Your task to perform on an android device: open sync settings in chrome Image 0: 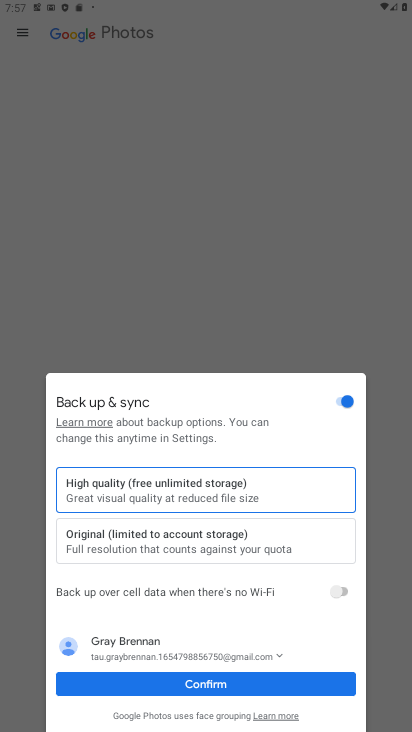
Step 0: press back button
Your task to perform on an android device: open sync settings in chrome Image 1: 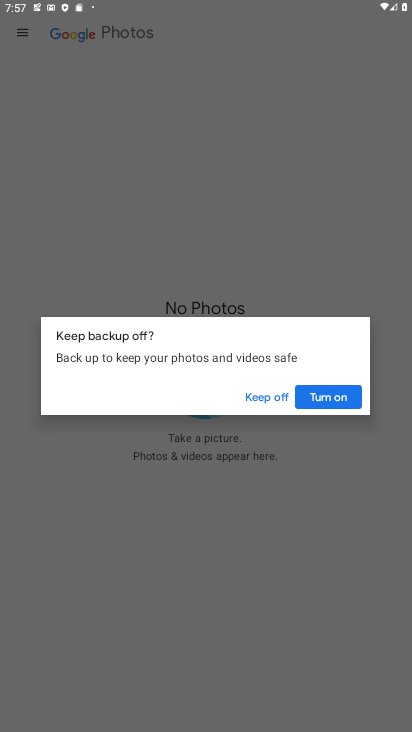
Step 1: click (253, 395)
Your task to perform on an android device: open sync settings in chrome Image 2: 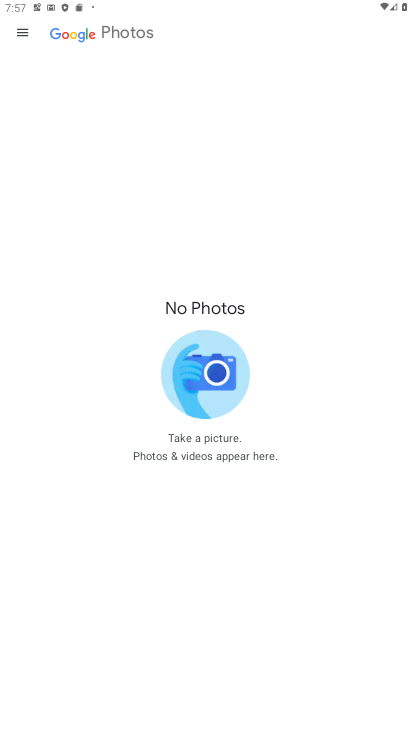
Step 2: press home button
Your task to perform on an android device: open sync settings in chrome Image 3: 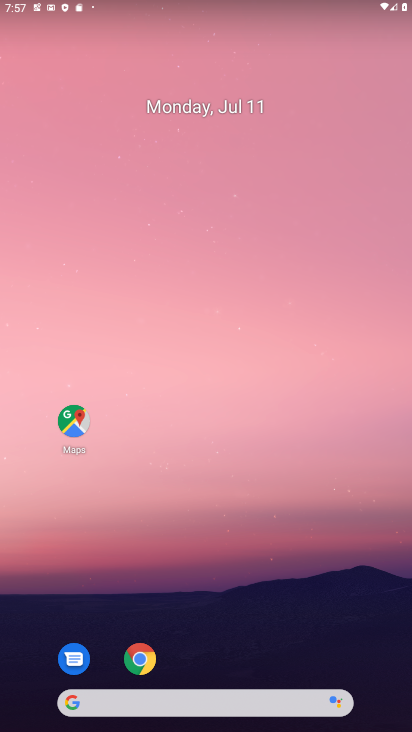
Step 3: drag from (243, 694) to (171, 153)
Your task to perform on an android device: open sync settings in chrome Image 4: 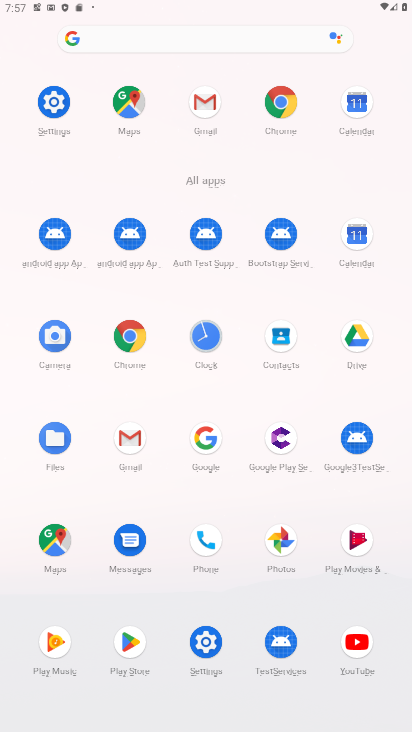
Step 4: click (287, 97)
Your task to perform on an android device: open sync settings in chrome Image 5: 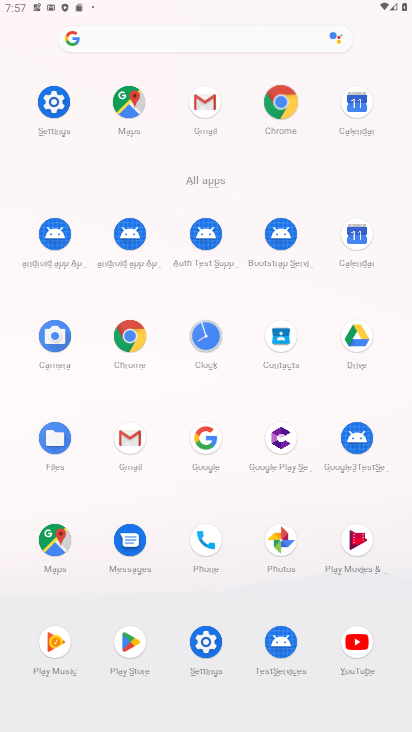
Step 5: click (291, 94)
Your task to perform on an android device: open sync settings in chrome Image 6: 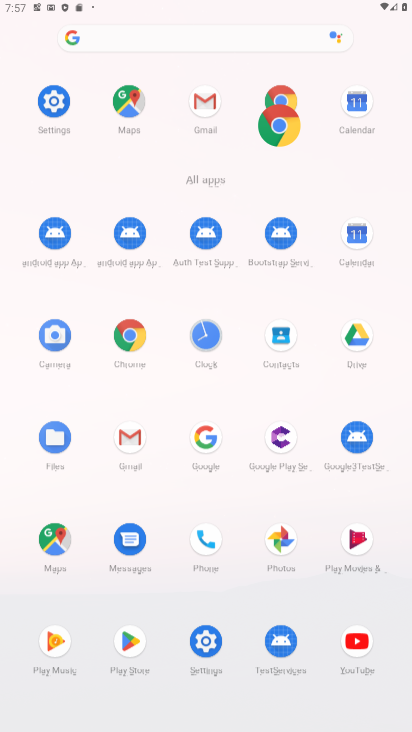
Step 6: click (293, 92)
Your task to perform on an android device: open sync settings in chrome Image 7: 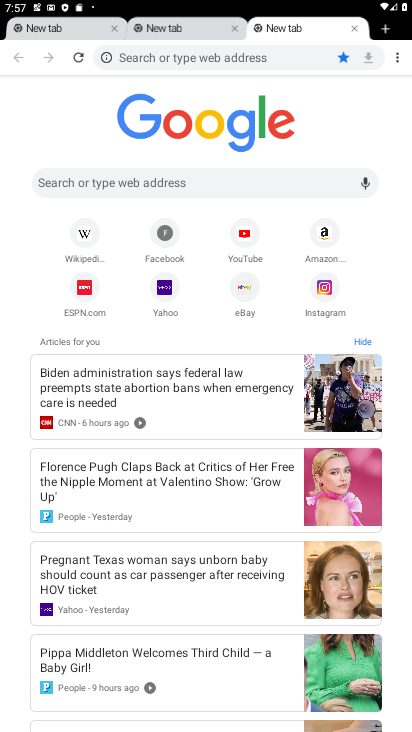
Step 7: drag from (394, 54) to (286, 267)
Your task to perform on an android device: open sync settings in chrome Image 8: 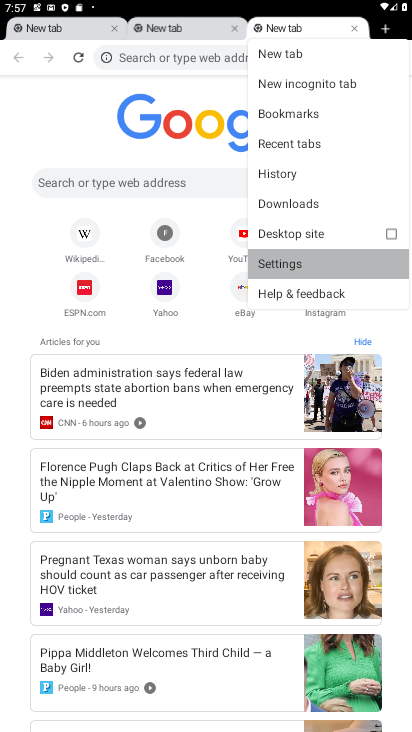
Step 8: click (283, 268)
Your task to perform on an android device: open sync settings in chrome Image 9: 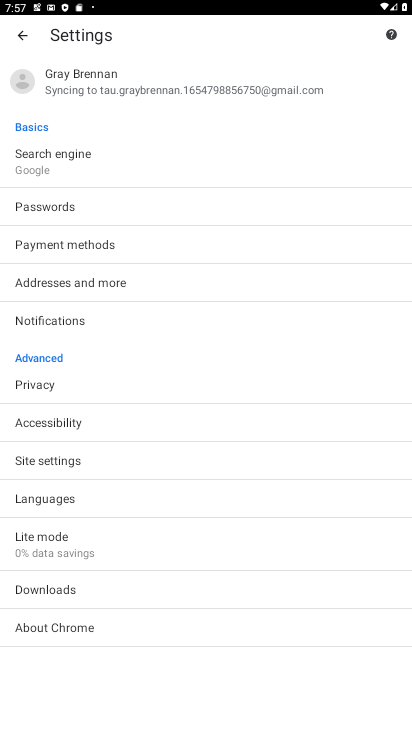
Step 9: click (44, 456)
Your task to perform on an android device: open sync settings in chrome Image 10: 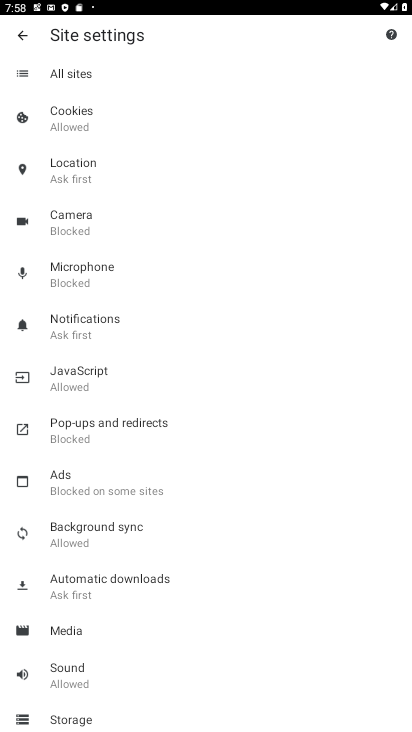
Step 10: click (70, 520)
Your task to perform on an android device: open sync settings in chrome Image 11: 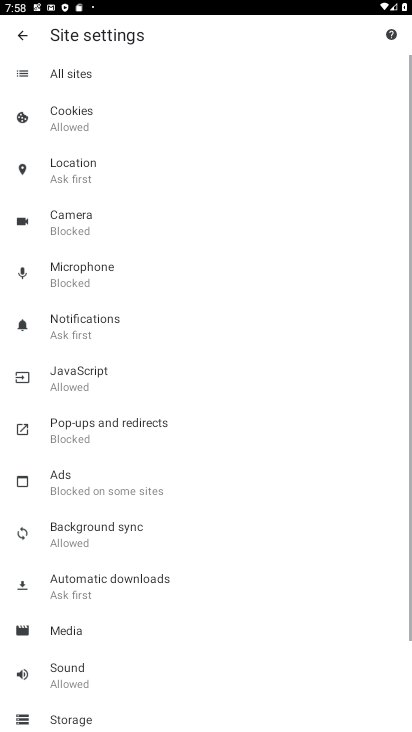
Step 11: click (80, 532)
Your task to perform on an android device: open sync settings in chrome Image 12: 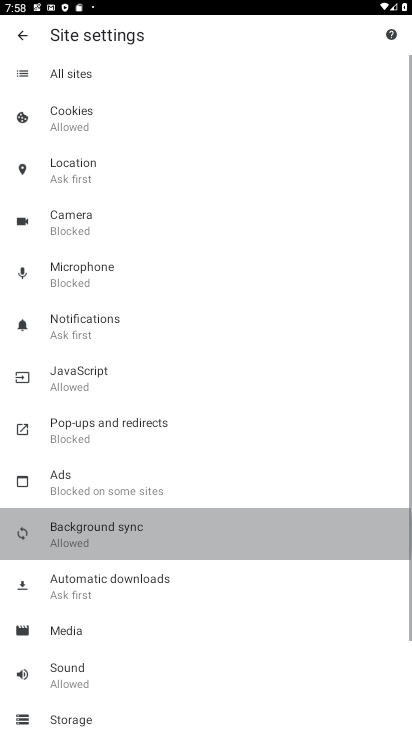
Step 12: click (81, 531)
Your task to perform on an android device: open sync settings in chrome Image 13: 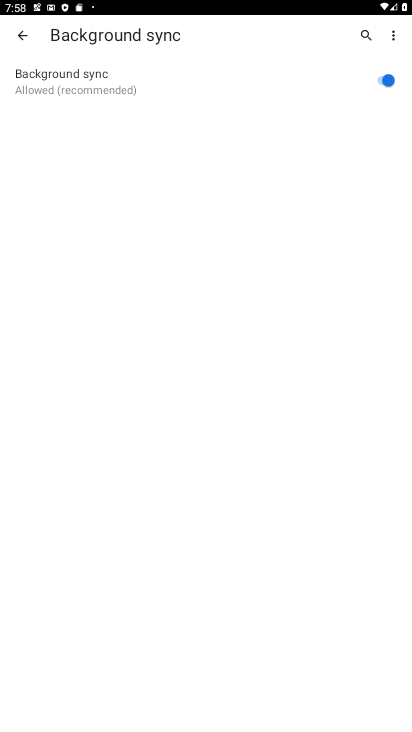
Step 13: task complete